Your task to perform on an android device: change keyboard looks Image 0: 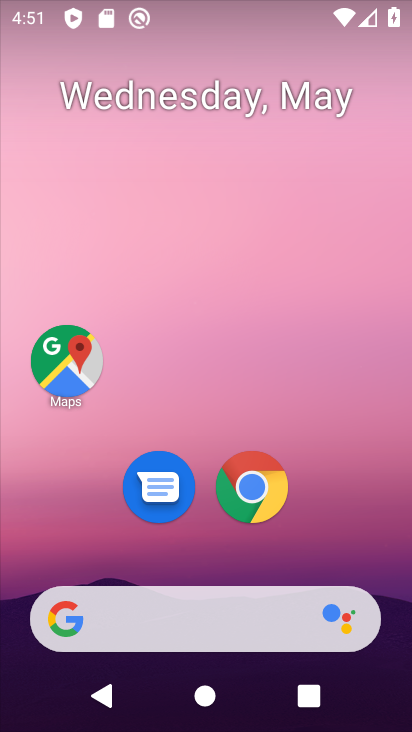
Step 0: drag from (322, 546) to (315, 260)
Your task to perform on an android device: change keyboard looks Image 1: 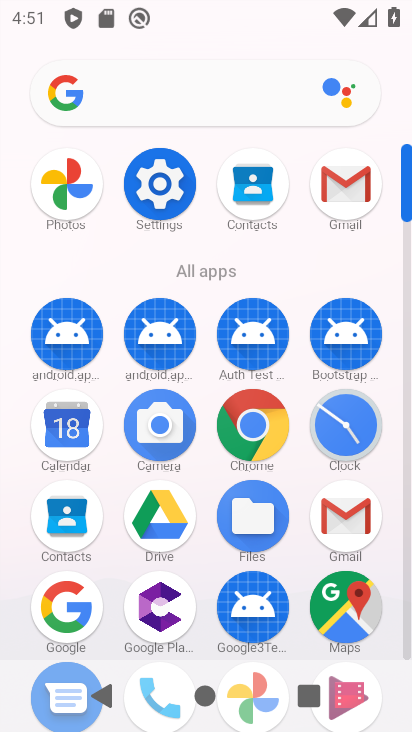
Step 1: click (137, 205)
Your task to perform on an android device: change keyboard looks Image 2: 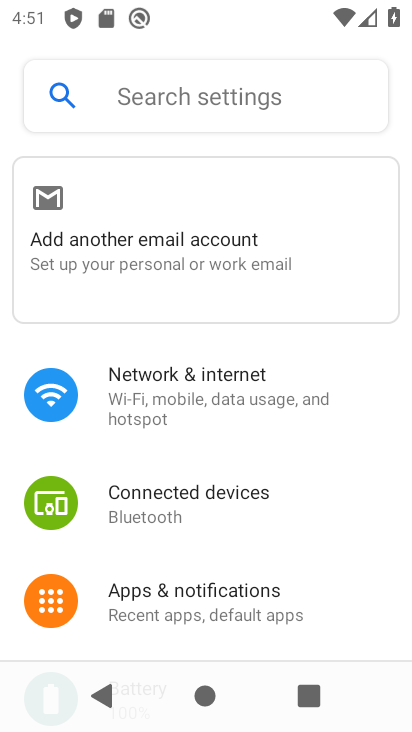
Step 2: drag from (227, 593) to (228, 150)
Your task to perform on an android device: change keyboard looks Image 3: 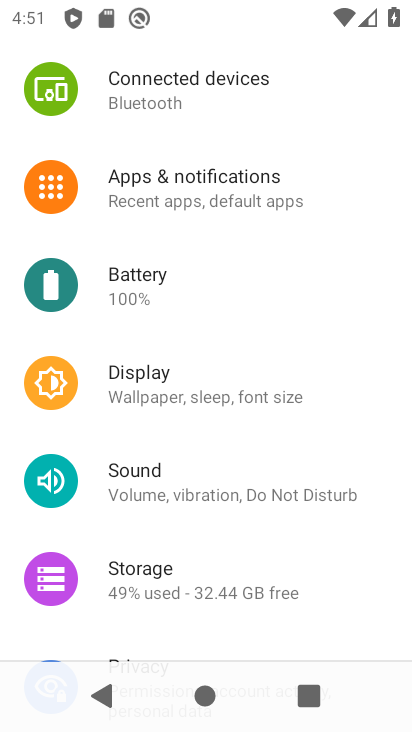
Step 3: drag from (237, 589) to (288, 182)
Your task to perform on an android device: change keyboard looks Image 4: 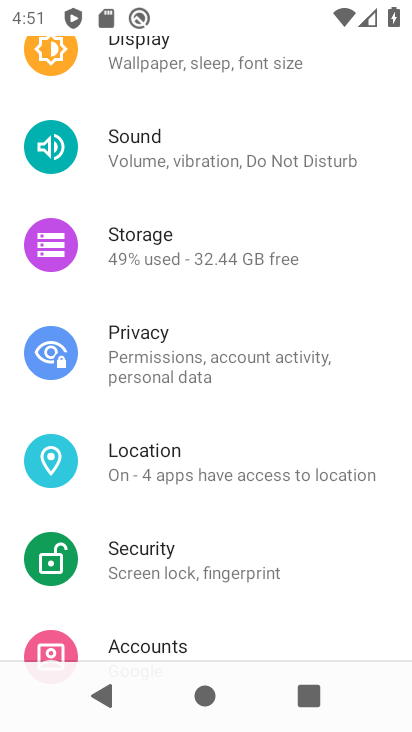
Step 4: drag from (177, 615) to (202, 280)
Your task to perform on an android device: change keyboard looks Image 5: 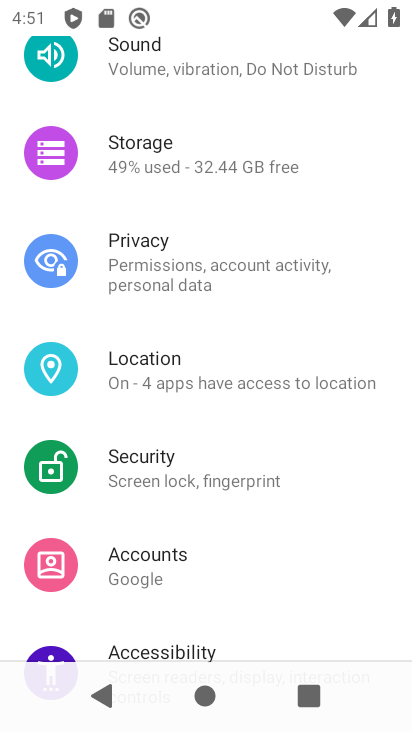
Step 5: drag from (167, 637) to (224, 217)
Your task to perform on an android device: change keyboard looks Image 6: 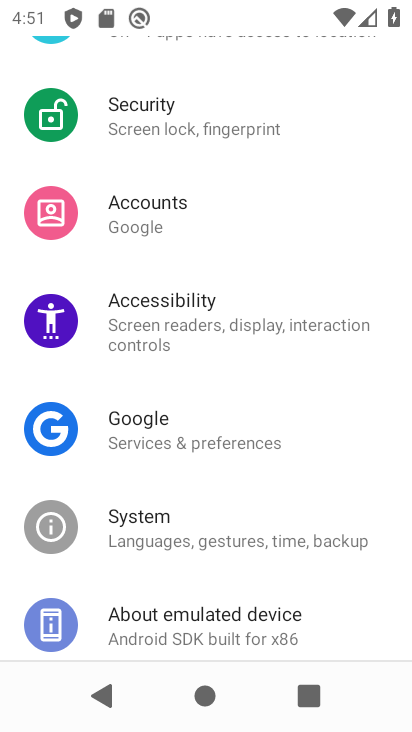
Step 6: click (222, 485)
Your task to perform on an android device: change keyboard looks Image 7: 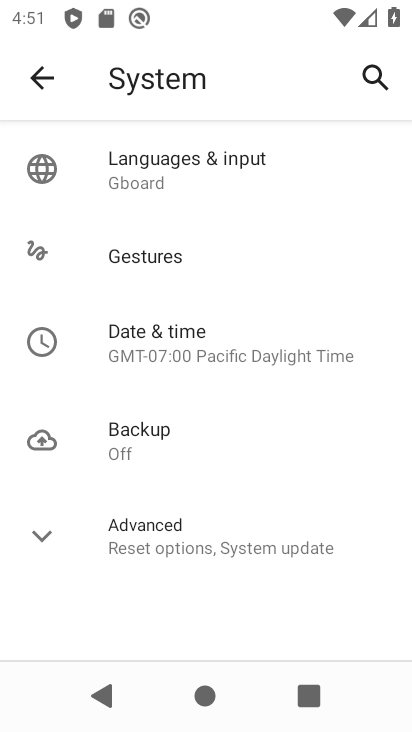
Step 7: click (144, 174)
Your task to perform on an android device: change keyboard looks Image 8: 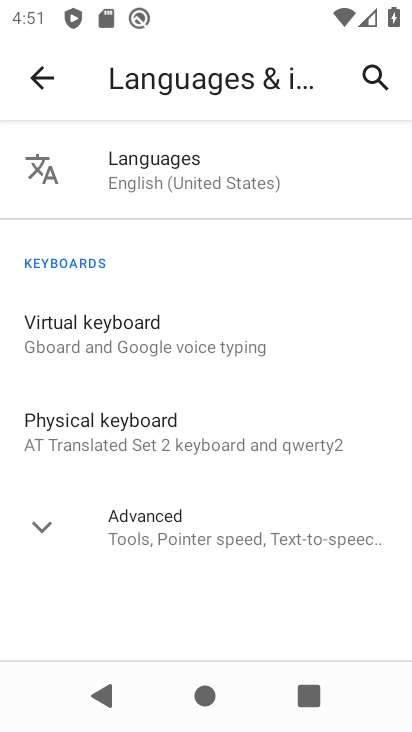
Step 8: click (123, 320)
Your task to perform on an android device: change keyboard looks Image 9: 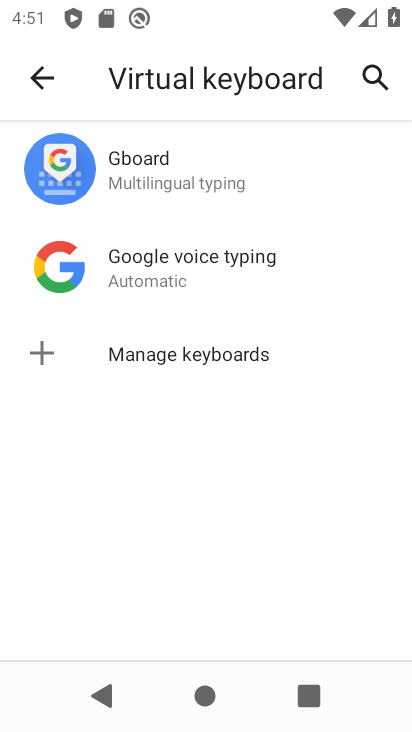
Step 9: click (152, 176)
Your task to perform on an android device: change keyboard looks Image 10: 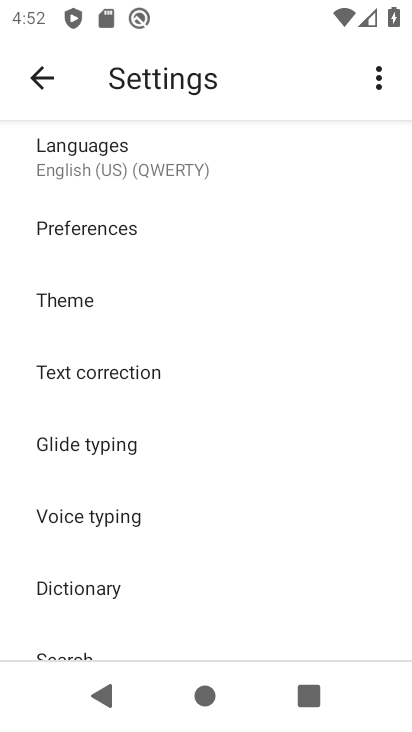
Step 10: click (151, 170)
Your task to perform on an android device: change keyboard looks Image 11: 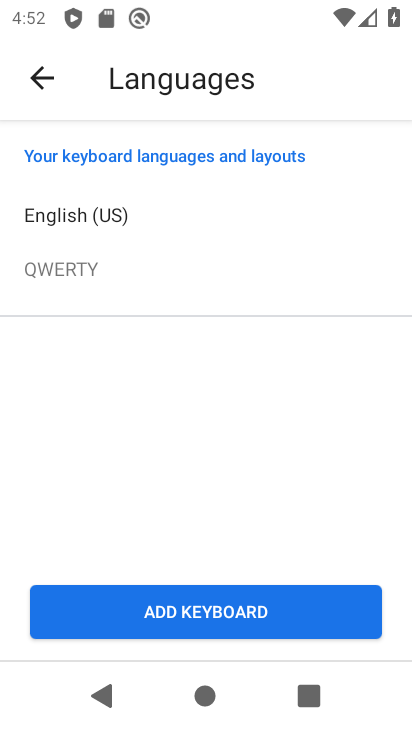
Step 11: click (46, 62)
Your task to perform on an android device: change keyboard looks Image 12: 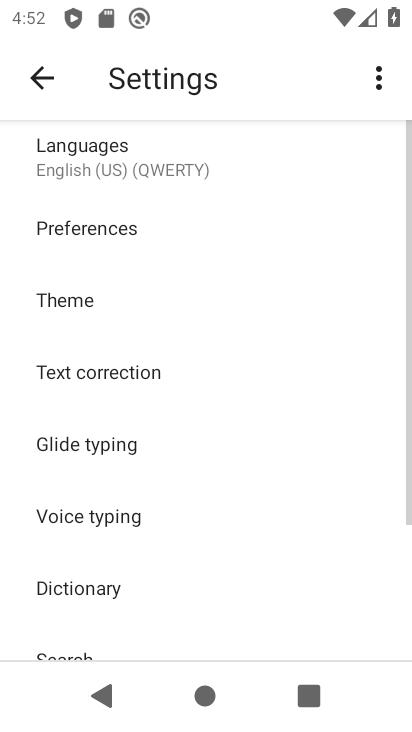
Step 12: click (122, 326)
Your task to perform on an android device: change keyboard looks Image 13: 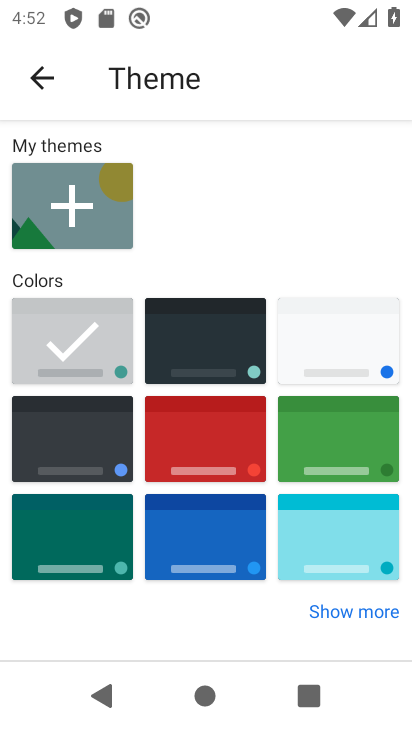
Step 13: click (175, 345)
Your task to perform on an android device: change keyboard looks Image 14: 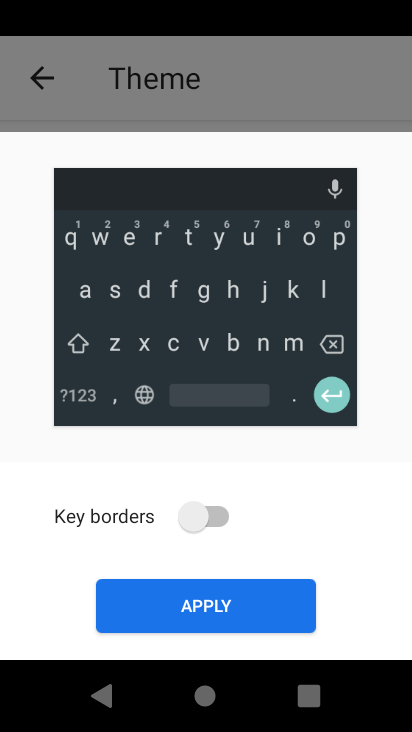
Step 14: click (267, 620)
Your task to perform on an android device: change keyboard looks Image 15: 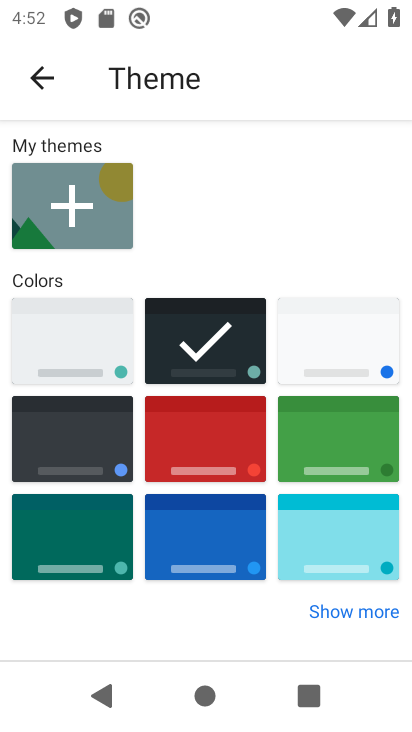
Step 15: task complete